Your task to perform on an android device: turn pop-ups off in chrome Image 0: 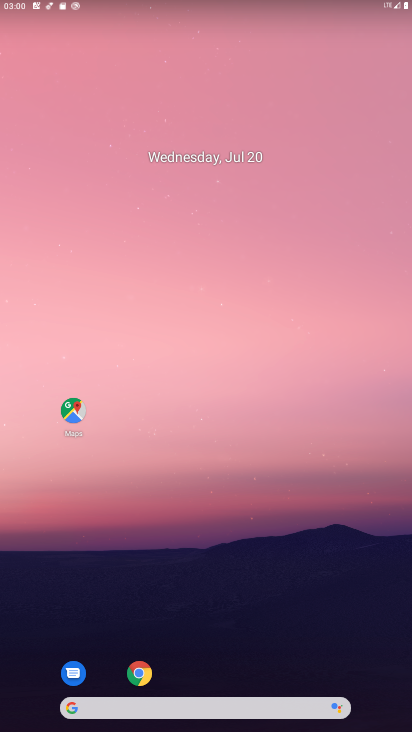
Step 0: drag from (224, 631) to (218, 69)
Your task to perform on an android device: turn pop-ups off in chrome Image 1: 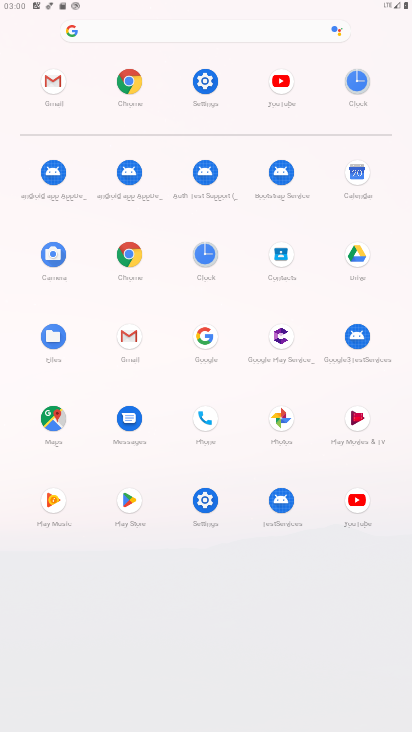
Step 1: click (130, 251)
Your task to perform on an android device: turn pop-ups off in chrome Image 2: 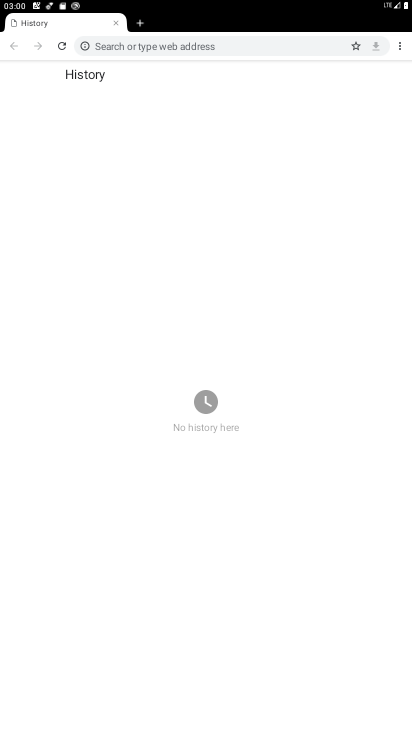
Step 2: click (398, 44)
Your task to perform on an android device: turn pop-ups off in chrome Image 3: 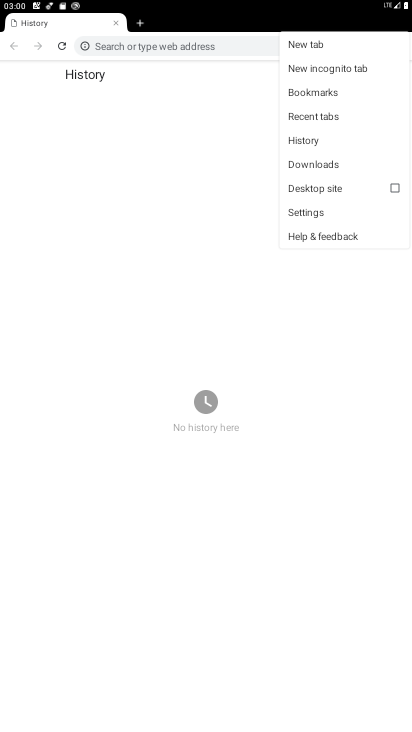
Step 3: click (310, 211)
Your task to perform on an android device: turn pop-ups off in chrome Image 4: 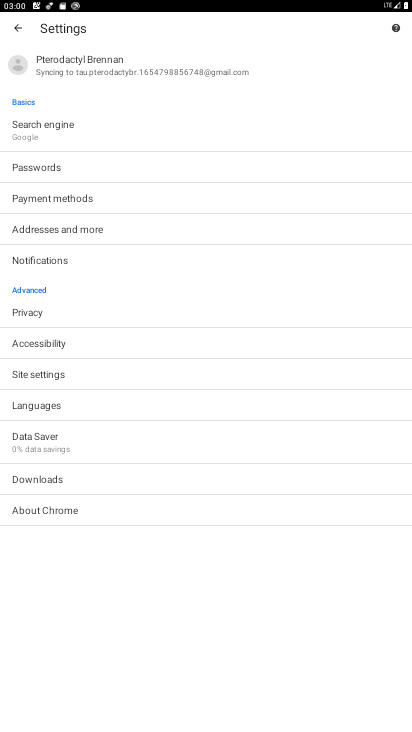
Step 4: click (48, 372)
Your task to perform on an android device: turn pop-ups off in chrome Image 5: 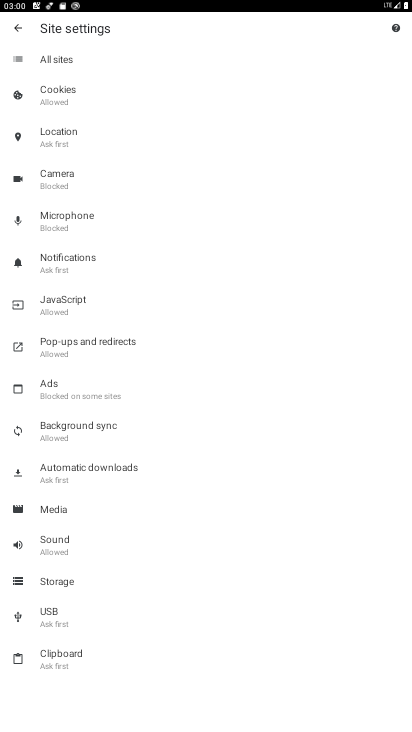
Step 5: click (95, 346)
Your task to perform on an android device: turn pop-ups off in chrome Image 6: 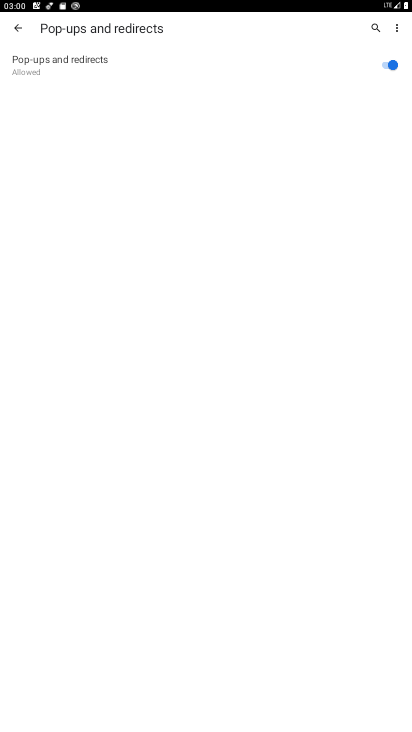
Step 6: click (371, 62)
Your task to perform on an android device: turn pop-ups off in chrome Image 7: 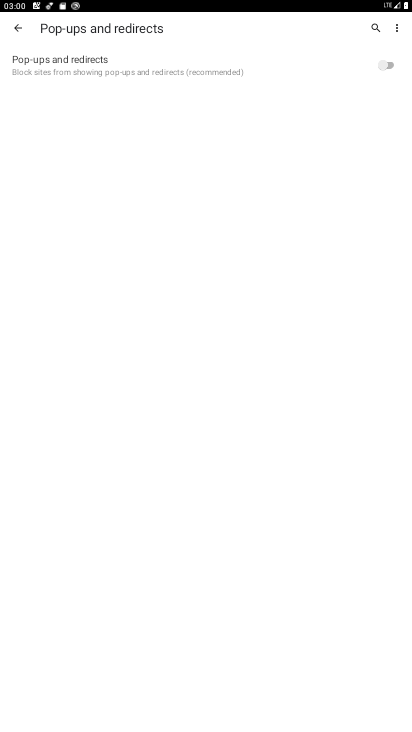
Step 7: task complete